Your task to perform on an android device: Look up the best rated power drills on Lowes.com Image 0: 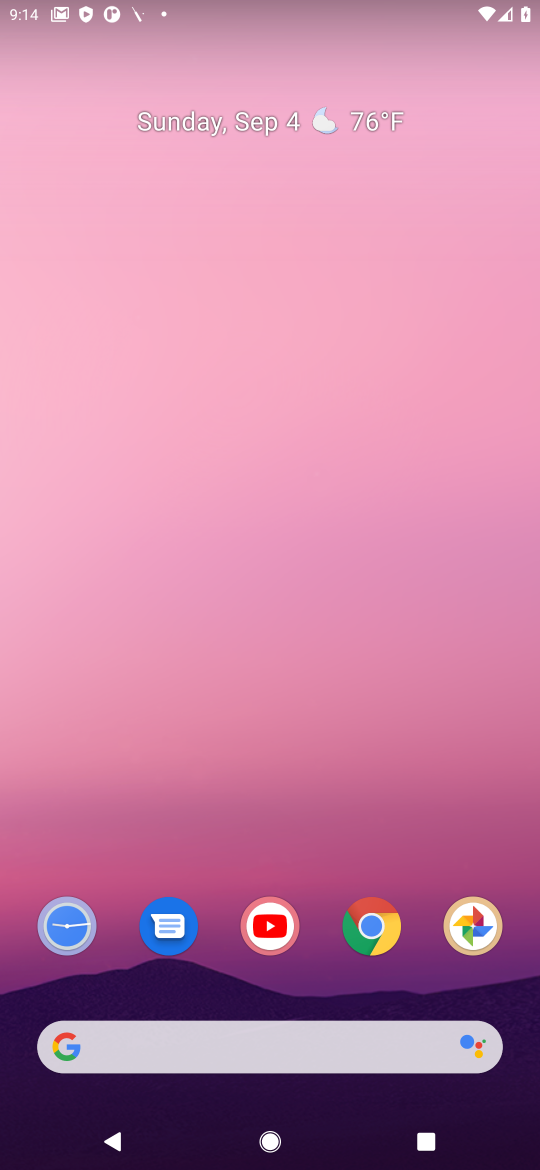
Step 0: click (231, 1030)
Your task to perform on an android device: Look up the best rated power drills on Lowes.com Image 1: 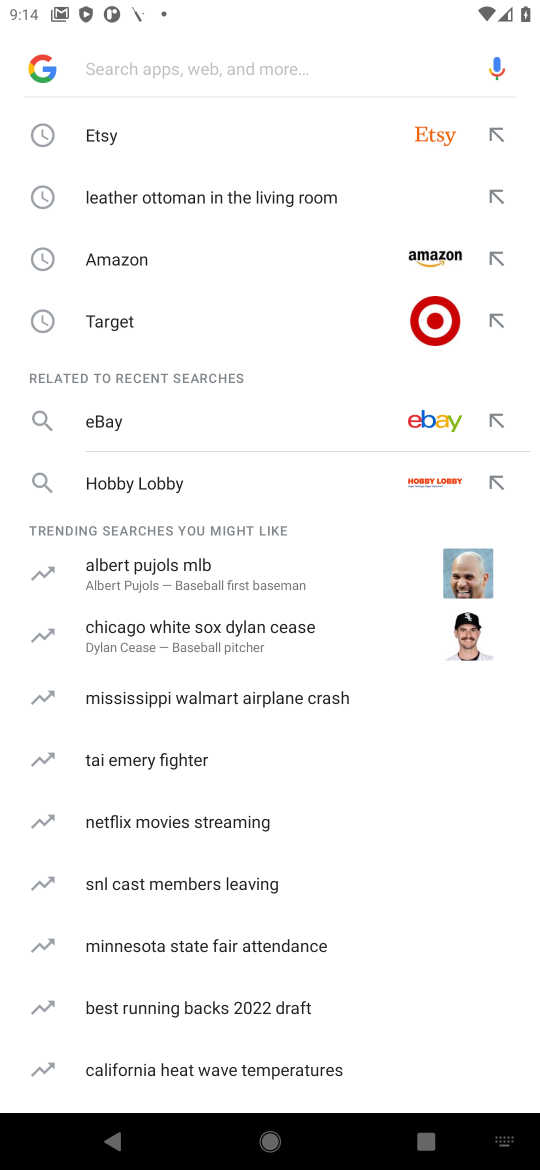
Step 1: type "lowes.com"
Your task to perform on an android device: Look up the best rated power drills on Lowes.com Image 2: 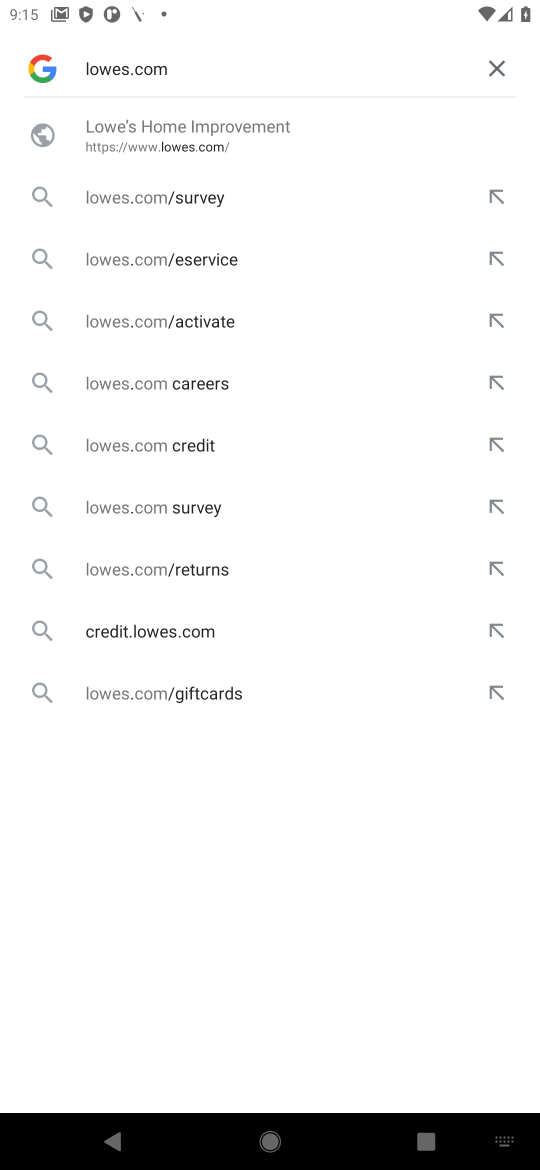
Step 2: click (180, 127)
Your task to perform on an android device: Look up the best rated power drills on Lowes.com Image 3: 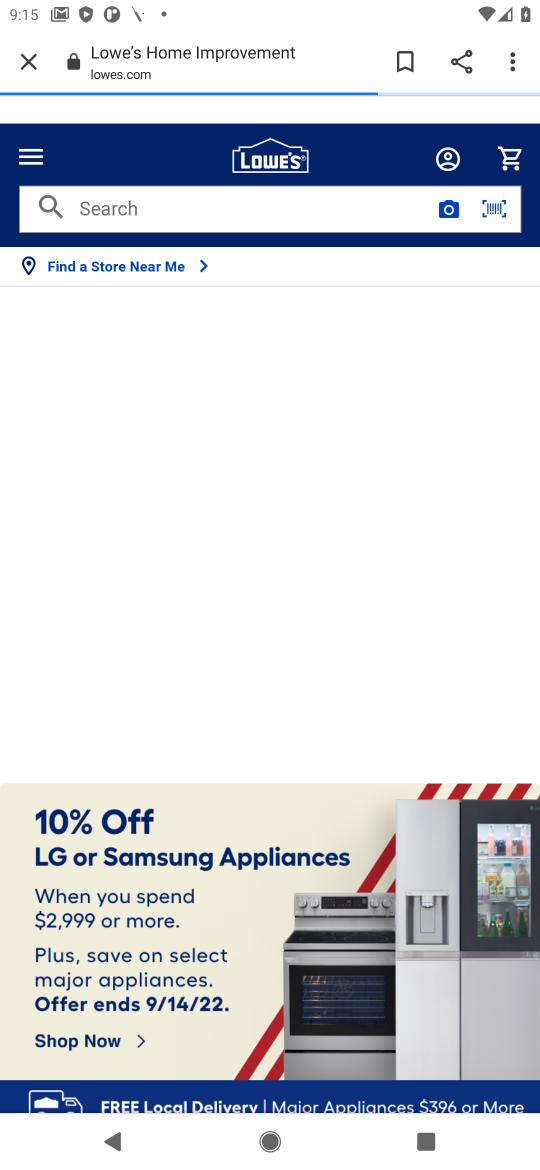
Step 3: click (205, 204)
Your task to perform on an android device: Look up the best rated power drills on Lowes.com Image 4: 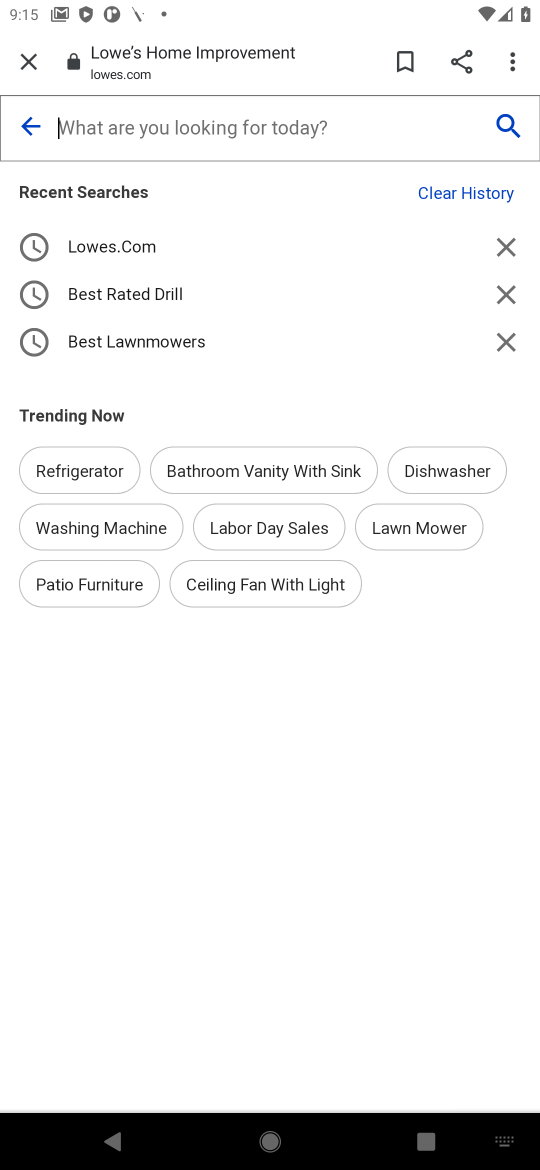
Step 4: type "best rated power drills"
Your task to perform on an android device: Look up the best rated power drills on Lowes.com Image 5: 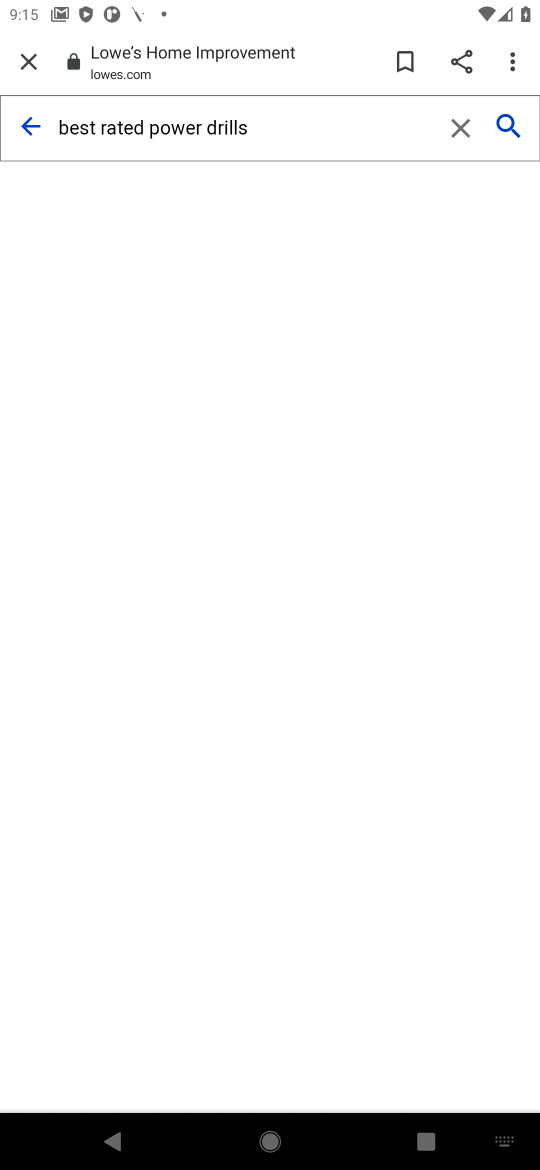
Step 5: click (512, 121)
Your task to perform on an android device: Look up the best rated power drills on Lowes.com Image 6: 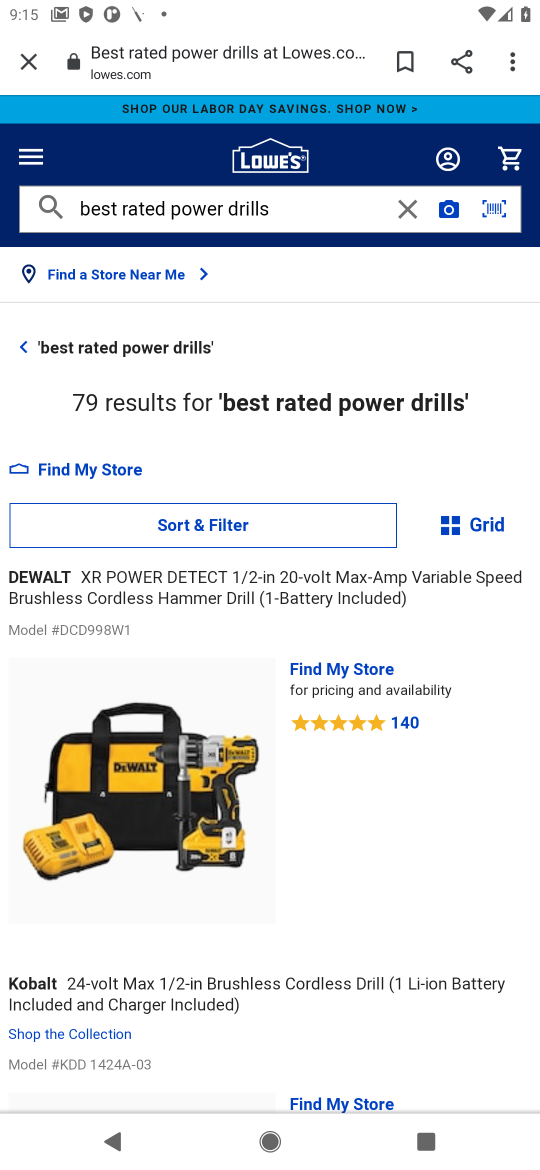
Step 6: task complete